Your task to perform on an android device: Open the web browser Image 0: 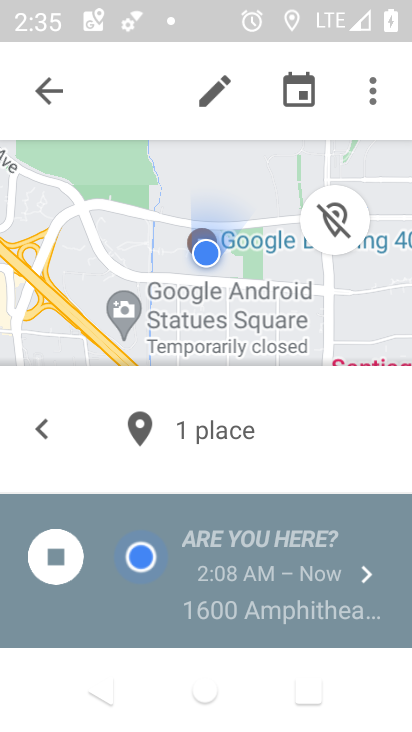
Step 0: press home button
Your task to perform on an android device: Open the web browser Image 1: 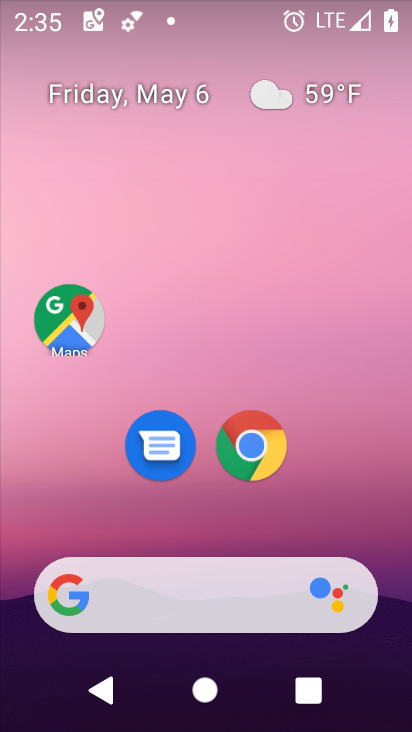
Step 1: click (272, 434)
Your task to perform on an android device: Open the web browser Image 2: 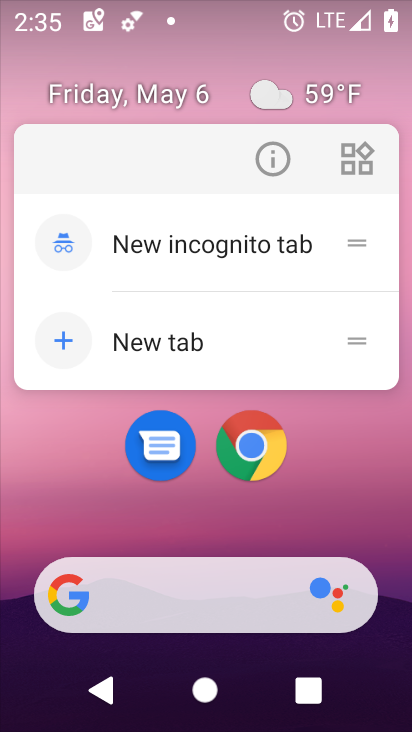
Step 2: click (259, 437)
Your task to perform on an android device: Open the web browser Image 3: 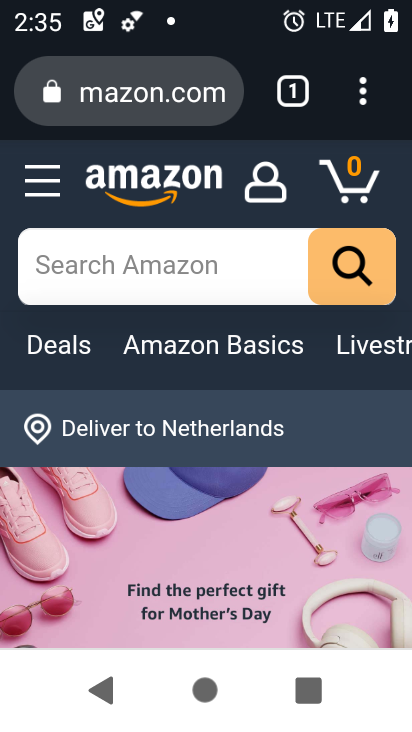
Step 3: task complete